Your task to perform on an android device: Clear all items from cart on amazon. Search for "amazon basics triple a" on amazon, select the first entry, and add it to the cart. Image 0: 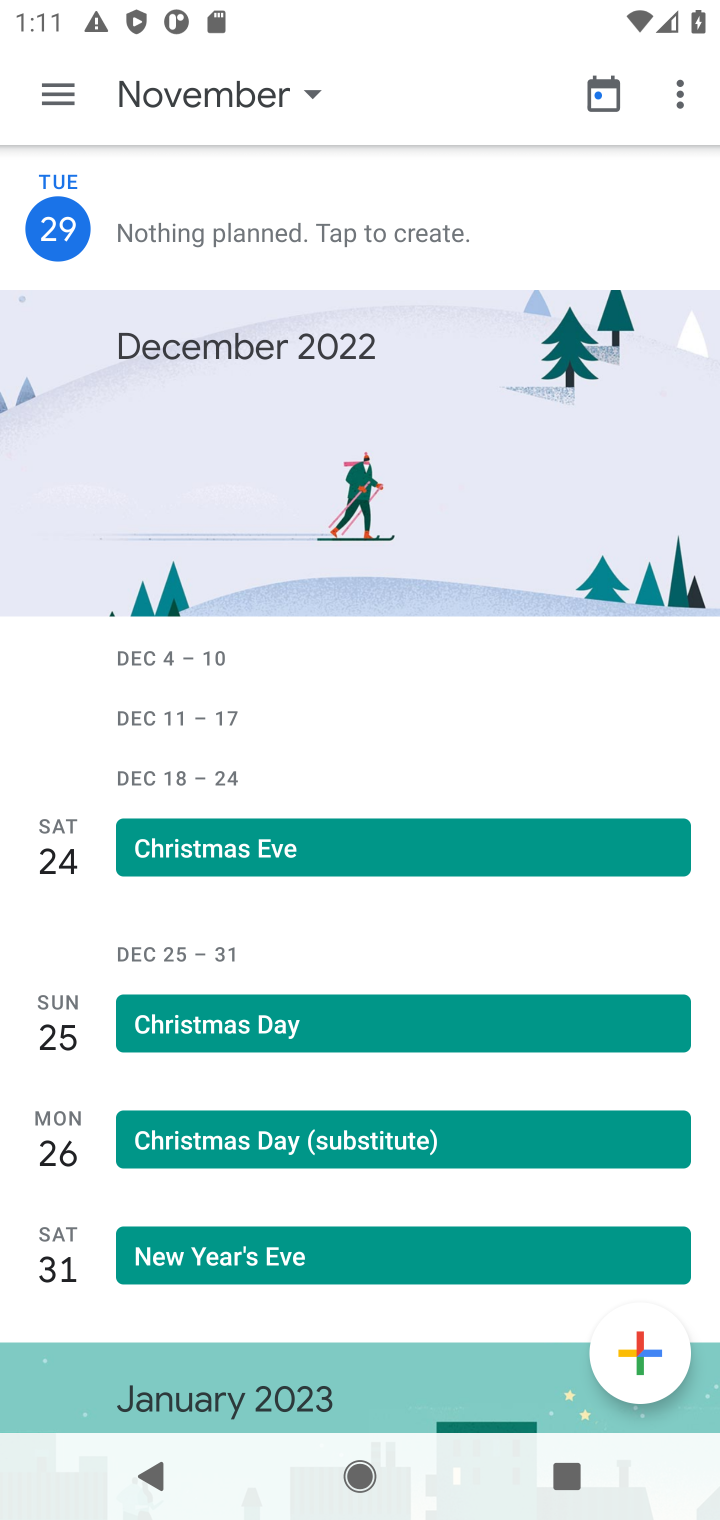
Step 0: press home button
Your task to perform on an android device: Clear all items from cart on amazon. Search for "amazon basics triple a" on amazon, select the first entry, and add it to the cart. Image 1: 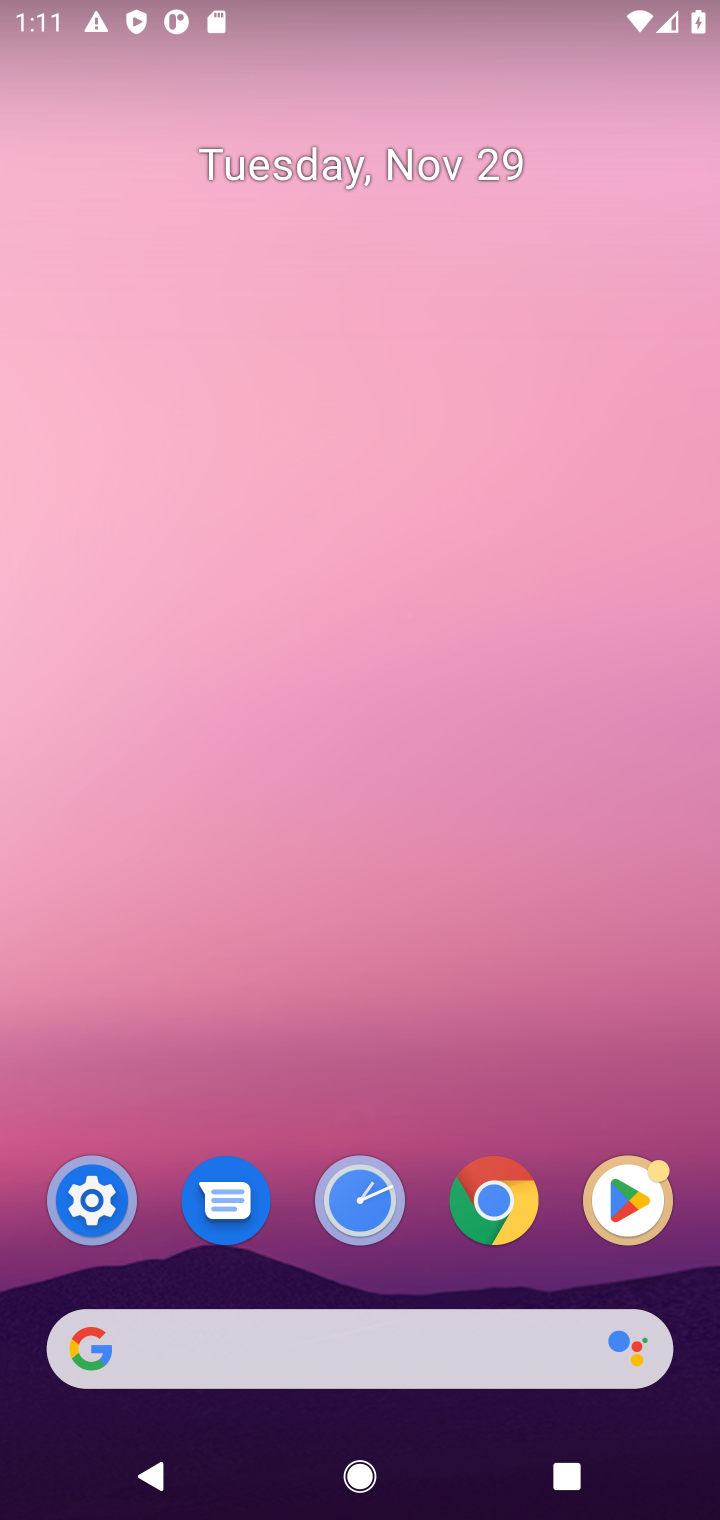
Step 1: click (278, 1334)
Your task to perform on an android device: Clear all items from cart on amazon. Search for "amazon basics triple a" on amazon, select the first entry, and add it to the cart. Image 2: 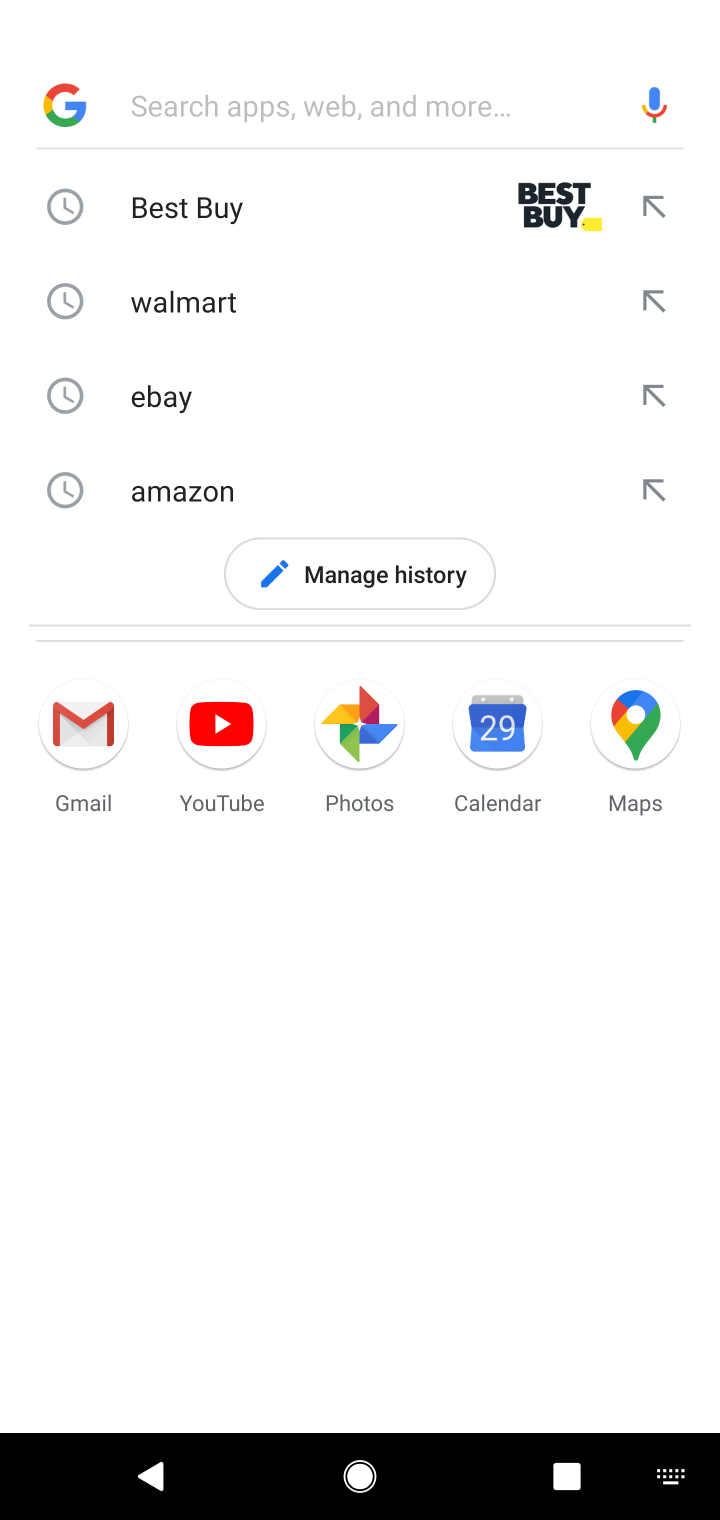
Step 2: type "amazon"
Your task to perform on an android device: Clear all items from cart on amazon. Search for "amazon basics triple a" on amazon, select the first entry, and add it to the cart. Image 3: 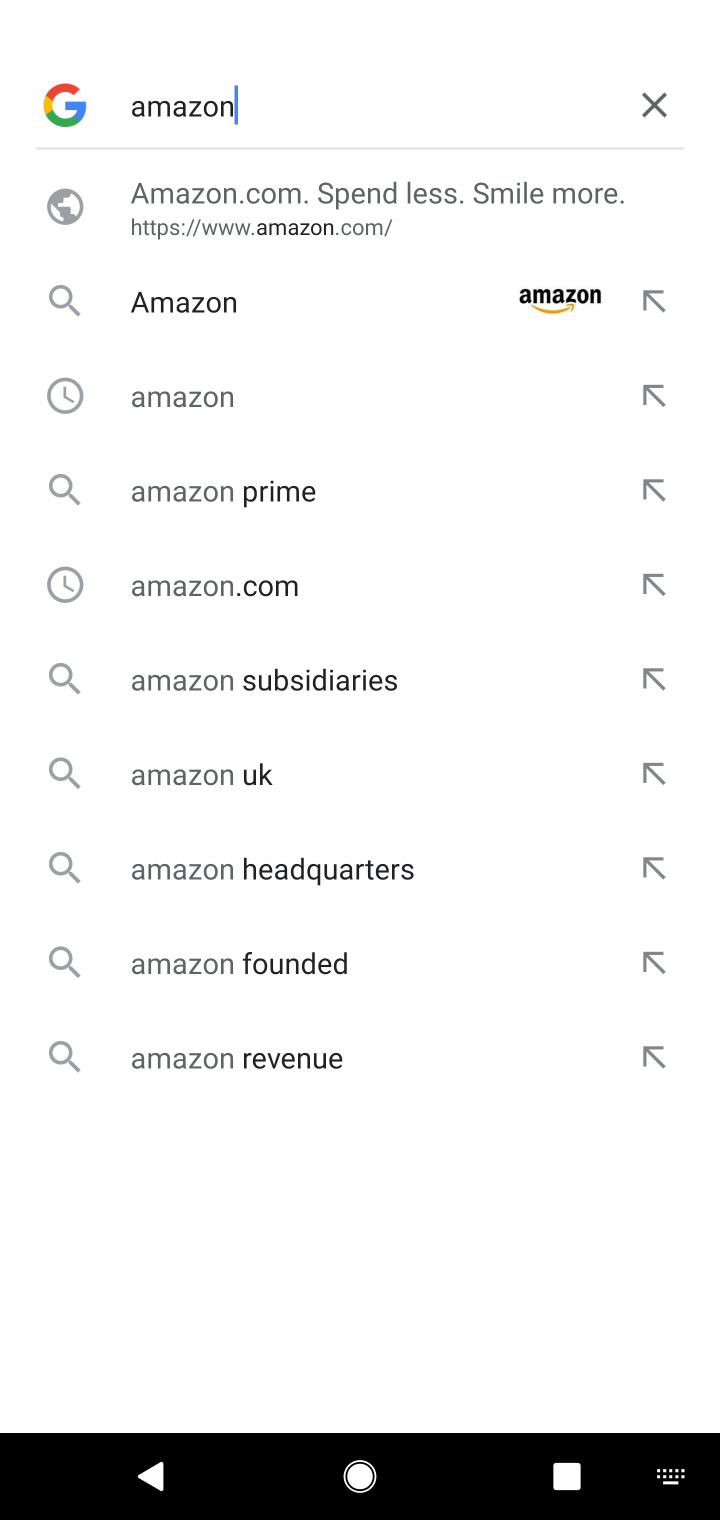
Step 3: click (347, 250)
Your task to perform on an android device: Clear all items from cart on amazon. Search for "amazon basics triple a" on amazon, select the first entry, and add it to the cart. Image 4: 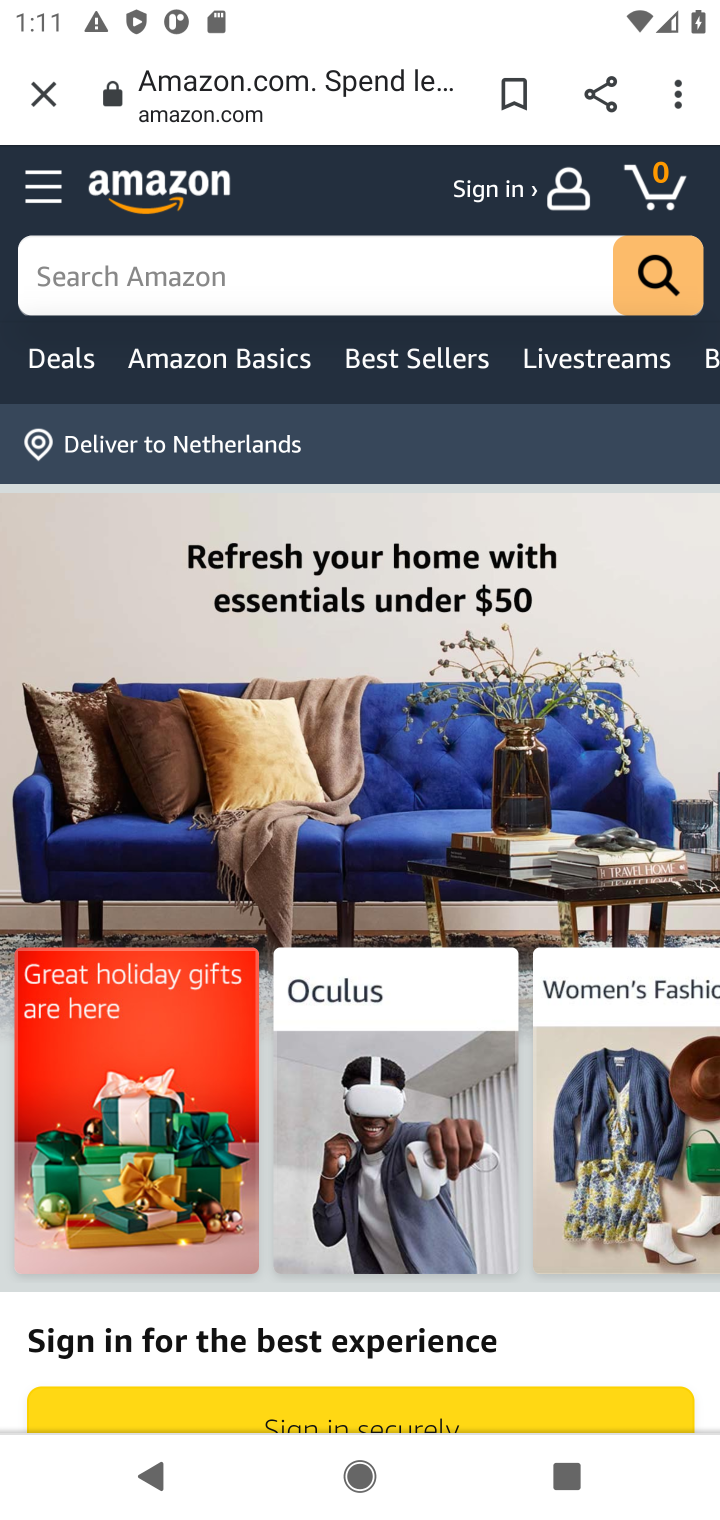
Step 4: click (309, 262)
Your task to perform on an android device: Clear all items from cart on amazon. Search for "amazon basics triple a" on amazon, select the first entry, and add it to the cart. Image 5: 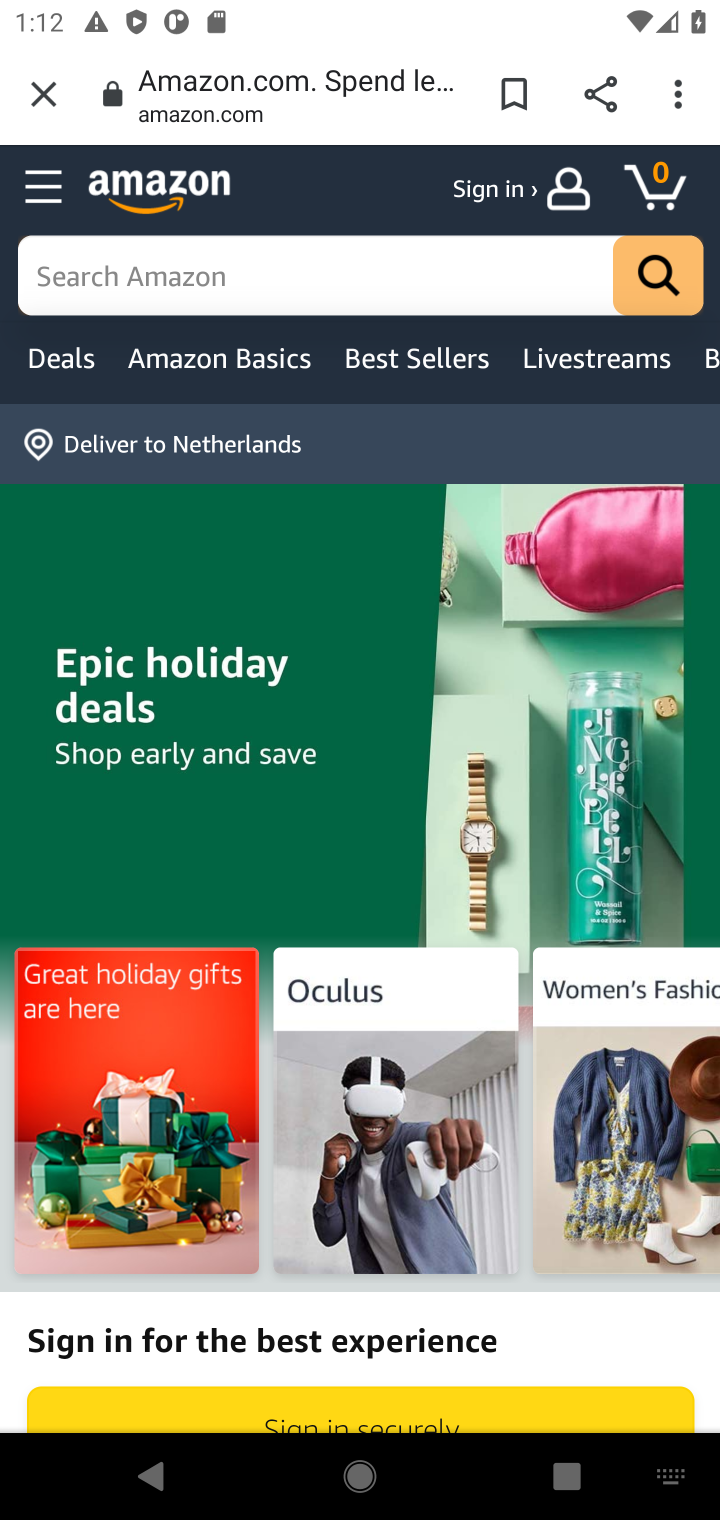
Step 5: type "amazon"
Your task to perform on an android device: Clear all items from cart on amazon. Search for "amazon basics triple a" on amazon, select the first entry, and add it to the cart. Image 6: 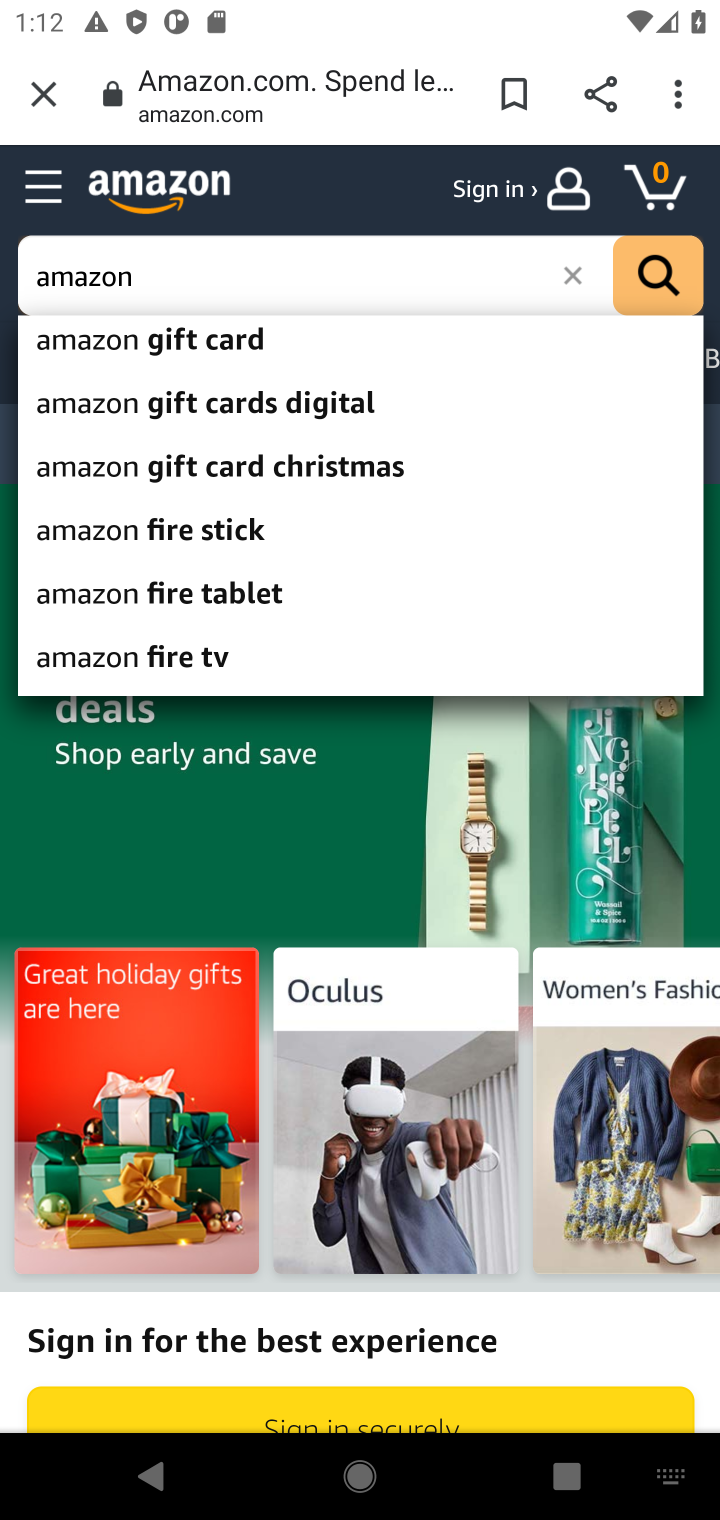
Step 6: task complete